Your task to perform on an android device: see tabs open on other devices in the chrome app Image 0: 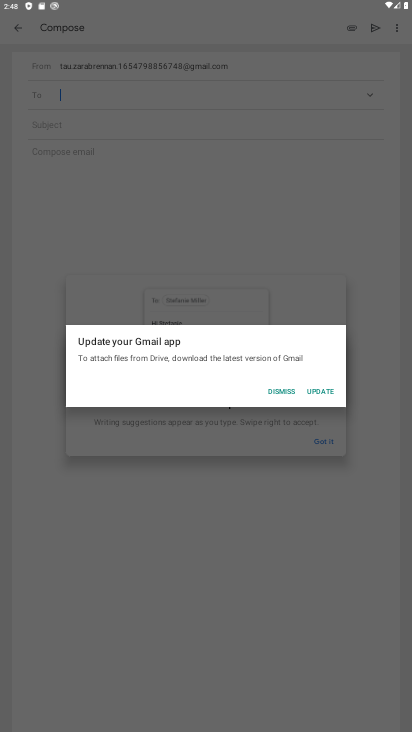
Step 0: press home button
Your task to perform on an android device: see tabs open on other devices in the chrome app Image 1: 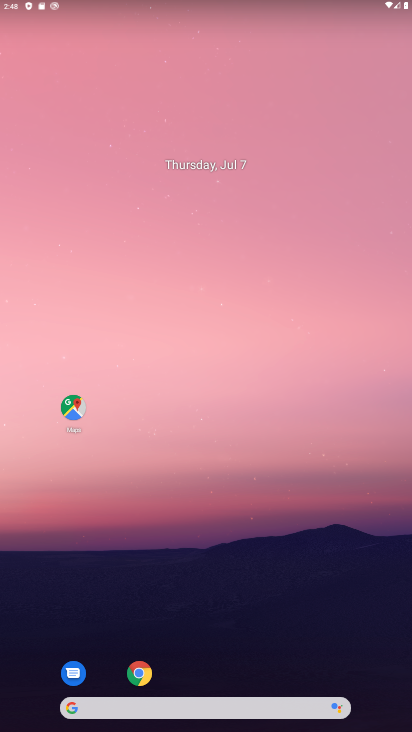
Step 1: click (136, 675)
Your task to perform on an android device: see tabs open on other devices in the chrome app Image 2: 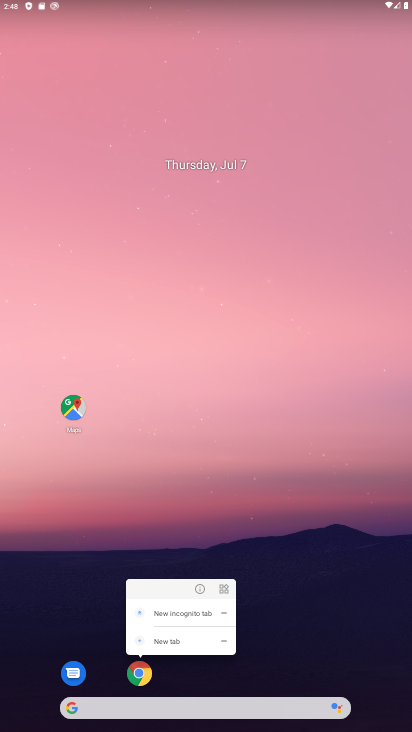
Step 2: click (140, 670)
Your task to perform on an android device: see tabs open on other devices in the chrome app Image 3: 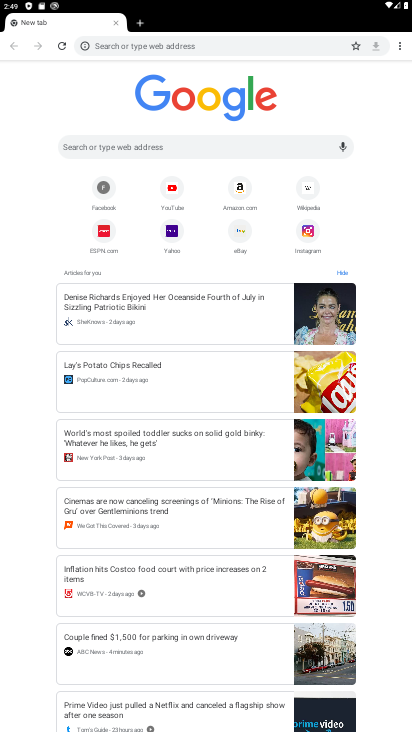
Step 3: task complete